Your task to perform on an android device: Open the map Image 0: 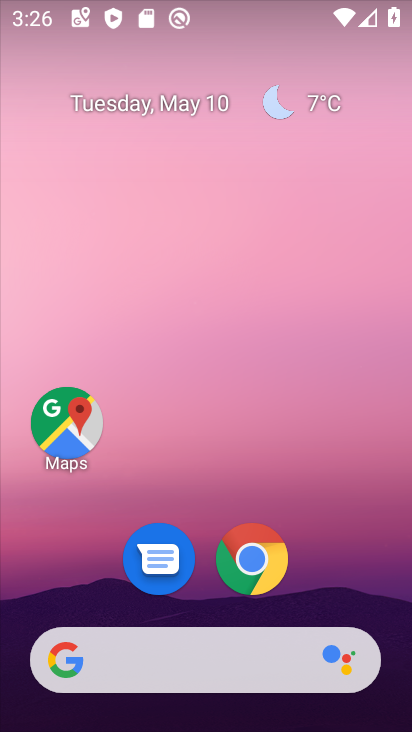
Step 0: click (54, 425)
Your task to perform on an android device: Open the map Image 1: 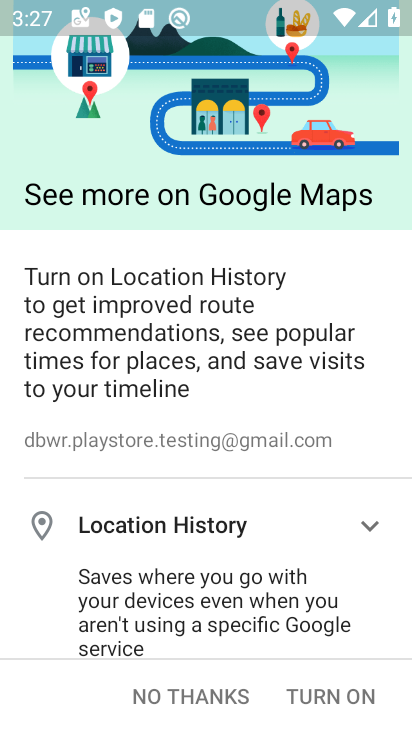
Step 1: press back button
Your task to perform on an android device: Open the map Image 2: 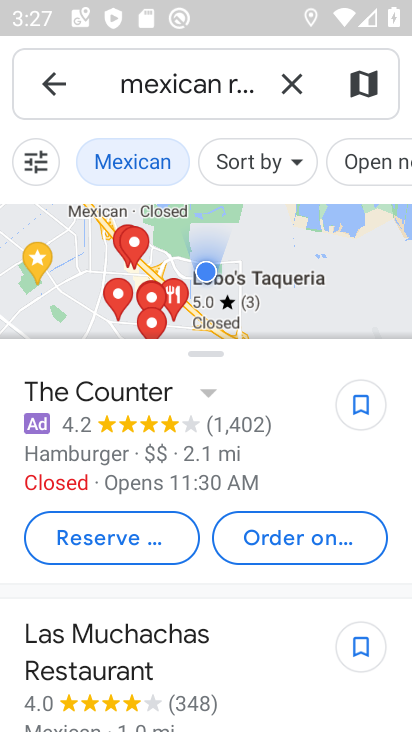
Step 2: drag from (244, 631) to (293, 376)
Your task to perform on an android device: Open the map Image 3: 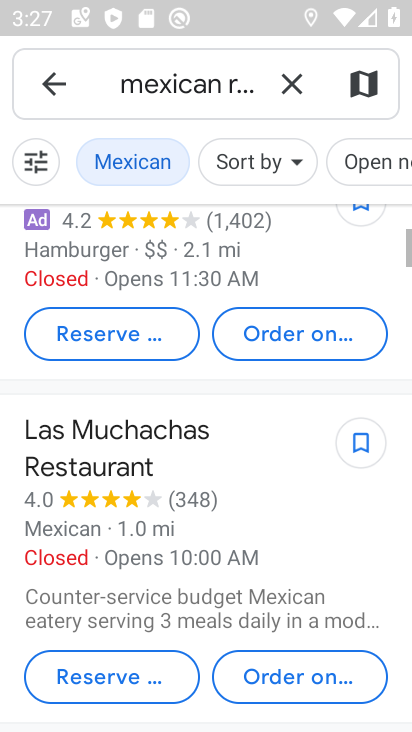
Step 3: click (296, 84)
Your task to perform on an android device: Open the map Image 4: 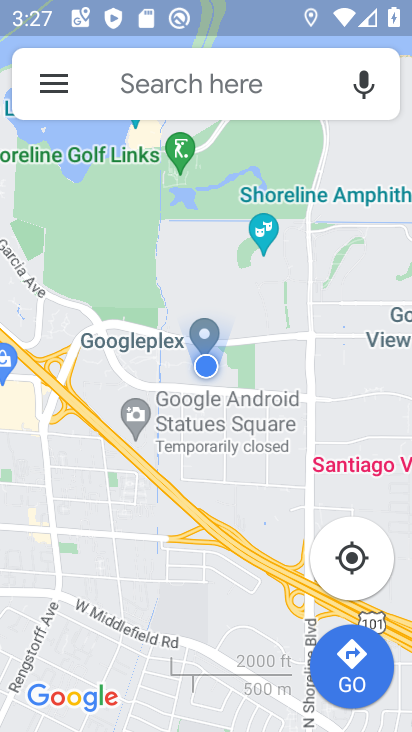
Step 4: task complete